Your task to perform on an android device: Open Google Chrome and click the shortcut for Amazon.com Image 0: 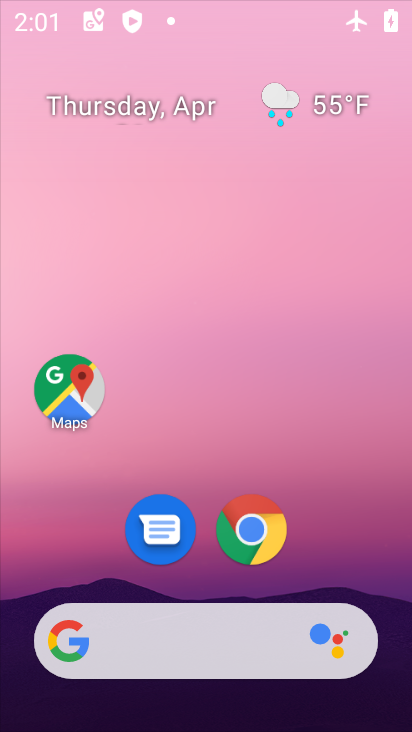
Step 0: click (255, 554)
Your task to perform on an android device: Open Google Chrome and click the shortcut for Amazon.com Image 1: 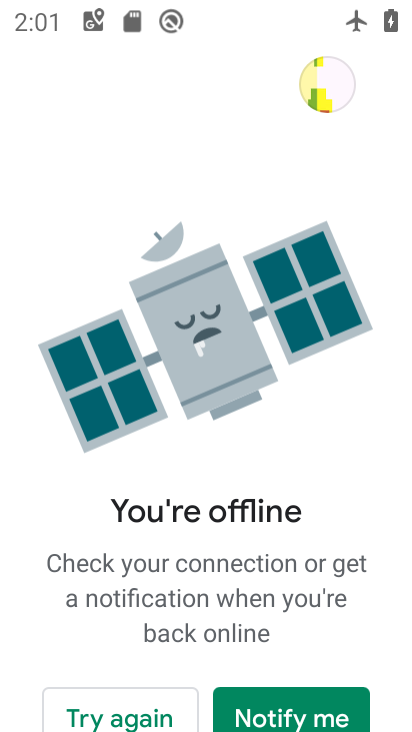
Step 1: press home button
Your task to perform on an android device: Open Google Chrome and click the shortcut for Amazon.com Image 2: 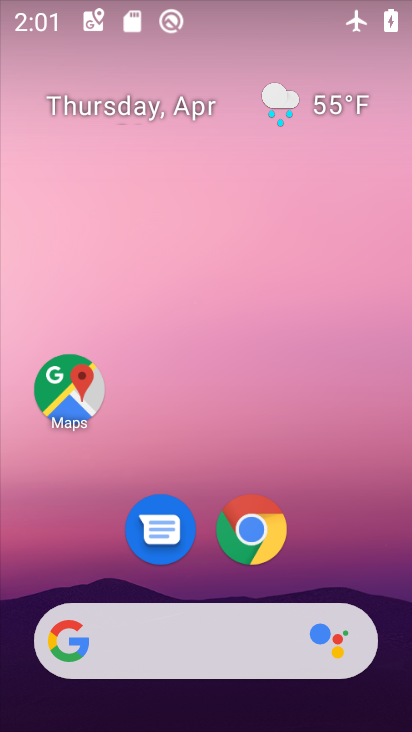
Step 2: click (278, 554)
Your task to perform on an android device: Open Google Chrome and click the shortcut for Amazon.com Image 3: 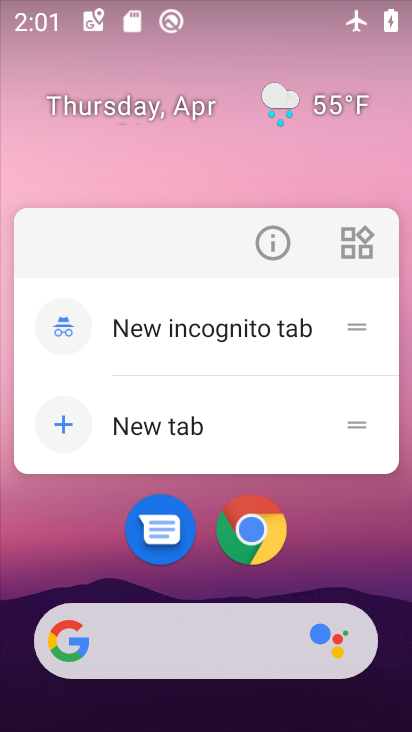
Step 3: click (271, 257)
Your task to perform on an android device: Open Google Chrome and click the shortcut for Amazon.com Image 4: 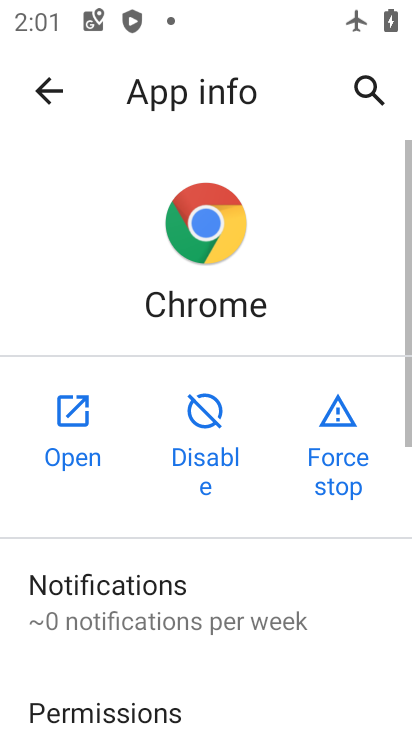
Step 4: click (75, 437)
Your task to perform on an android device: Open Google Chrome and click the shortcut for Amazon.com Image 5: 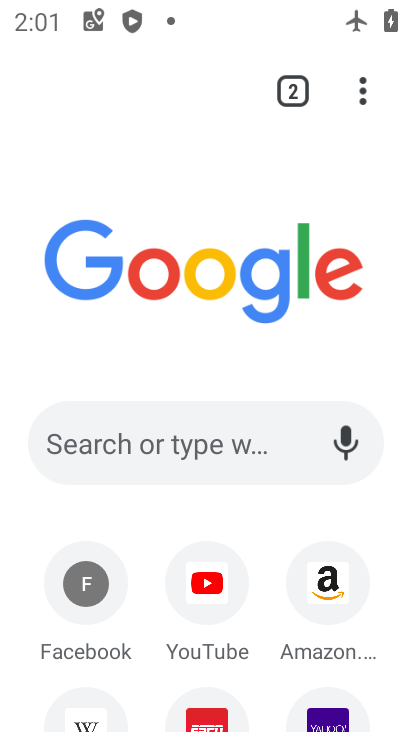
Step 5: click (330, 583)
Your task to perform on an android device: Open Google Chrome and click the shortcut for Amazon.com Image 6: 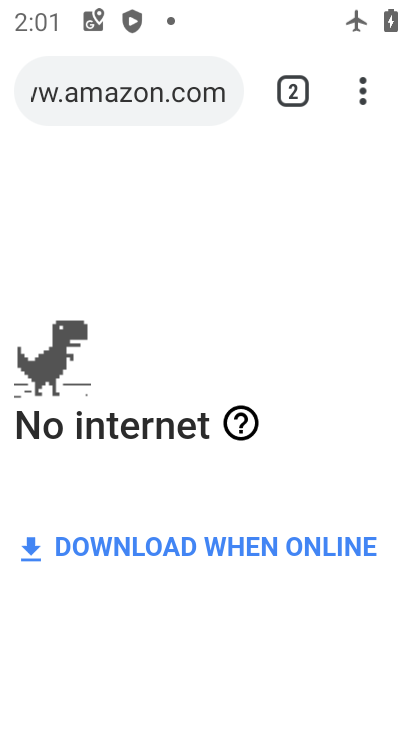
Step 6: task complete